Your task to perform on an android device: Go to sound settings Image 0: 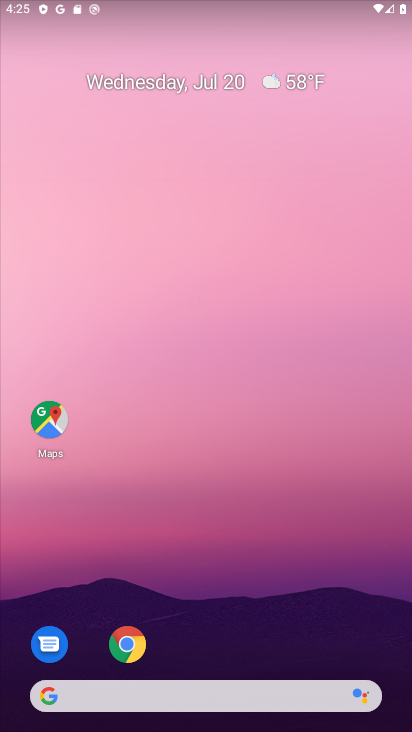
Step 0: press home button
Your task to perform on an android device: Go to sound settings Image 1: 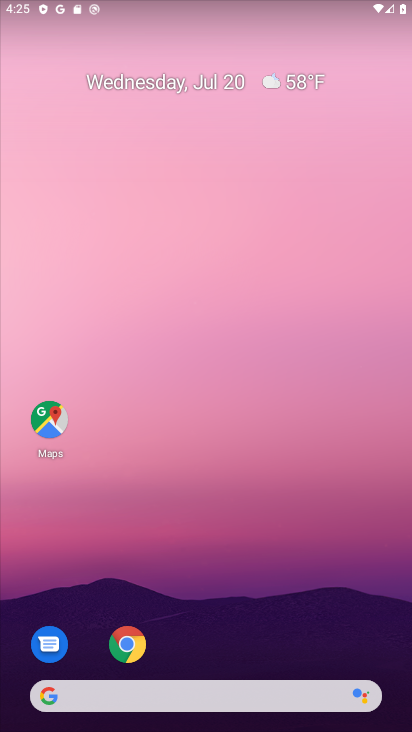
Step 1: drag from (245, 654) to (228, 18)
Your task to perform on an android device: Go to sound settings Image 2: 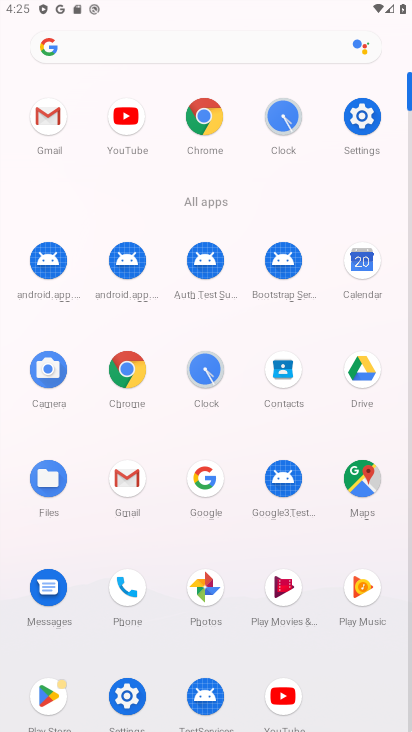
Step 2: click (358, 116)
Your task to perform on an android device: Go to sound settings Image 3: 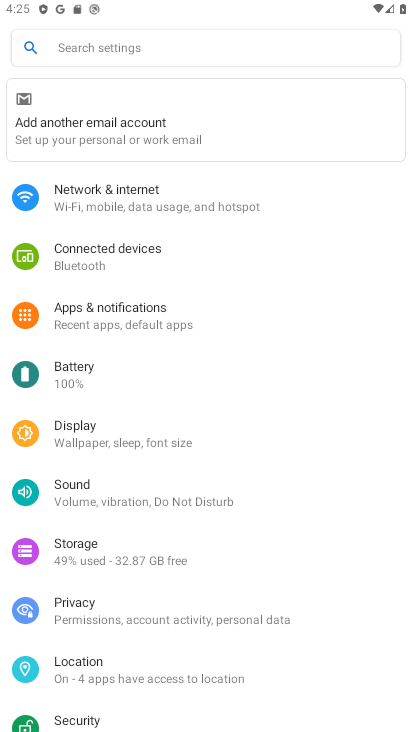
Step 3: click (78, 494)
Your task to perform on an android device: Go to sound settings Image 4: 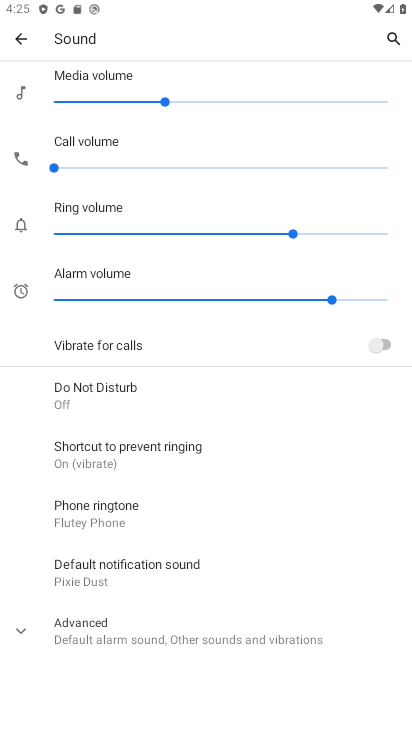
Step 4: task complete